Your task to perform on an android device: delete browsing data in the chrome app Image 0: 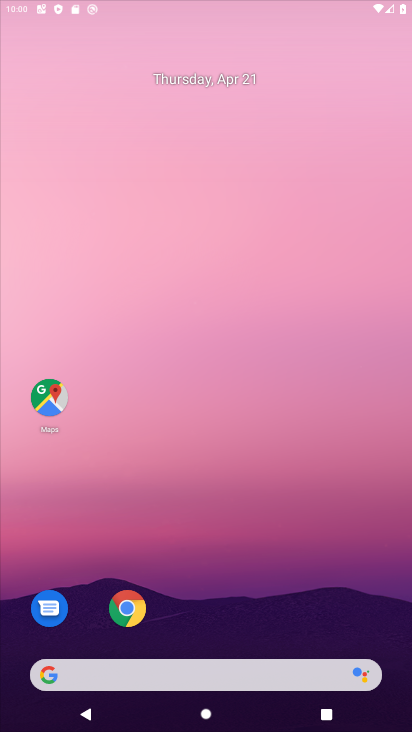
Step 0: drag from (275, 562) to (313, 164)
Your task to perform on an android device: delete browsing data in the chrome app Image 1: 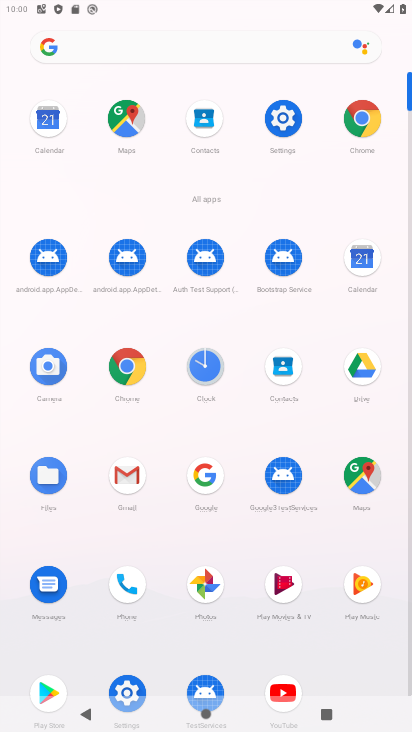
Step 1: click (350, 128)
Your task to perform on an android device: delete browsing data in the chrome app Image 2: 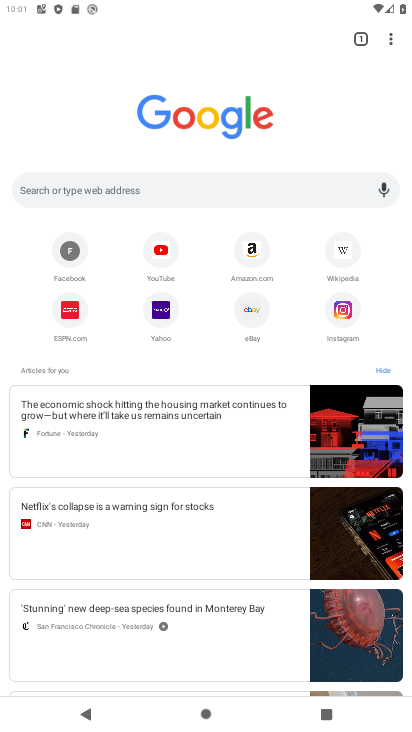
Step 2: task complete